Your task to perform on an android device: open wifi settings Image 0: 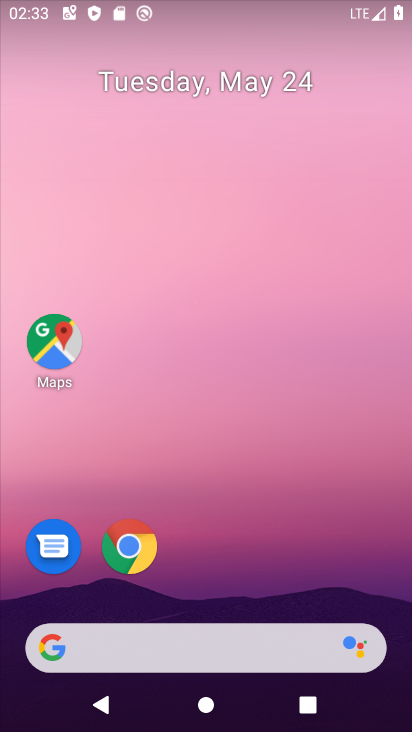
Step 0: drag from (210, 587) to (314, 170)
Your task to perform on an android device: open wifi settings Image 1: 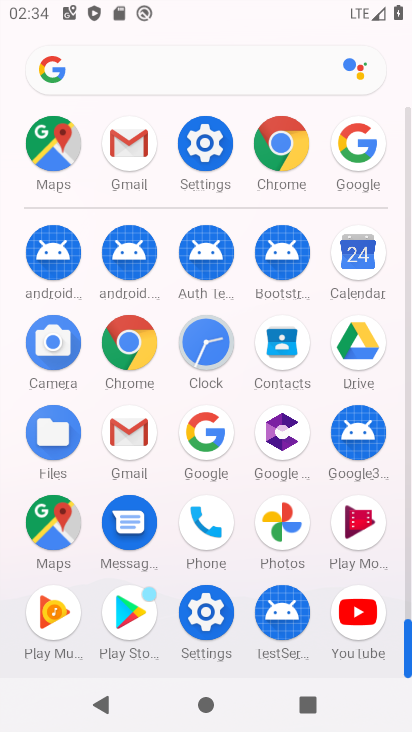
Step 1: click (185, 157)
Your task to perform on an android device: open wifi settings Image 2: 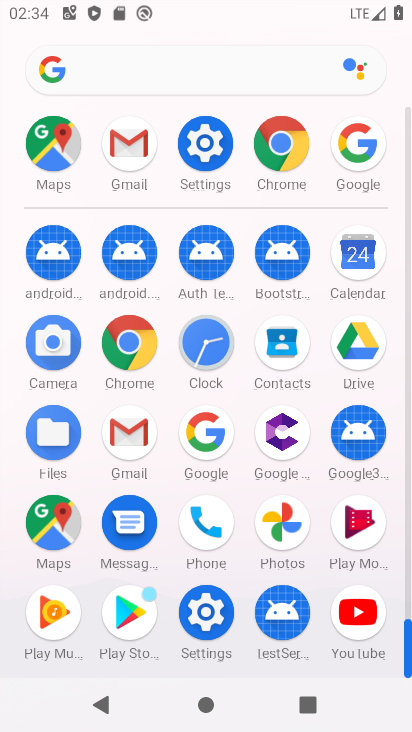
Step 2: click (185, 157)
Your task to perform on an android device: open wifi settings Image 3: 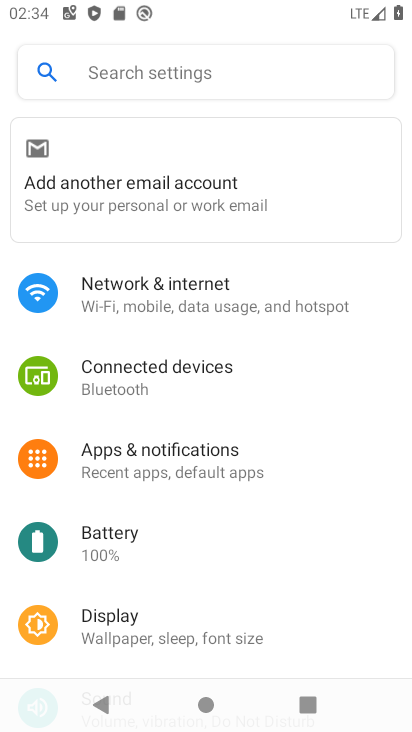
Step 3: click (210, 302)
Your task to perform on an android device: open wifi settings Image 4: 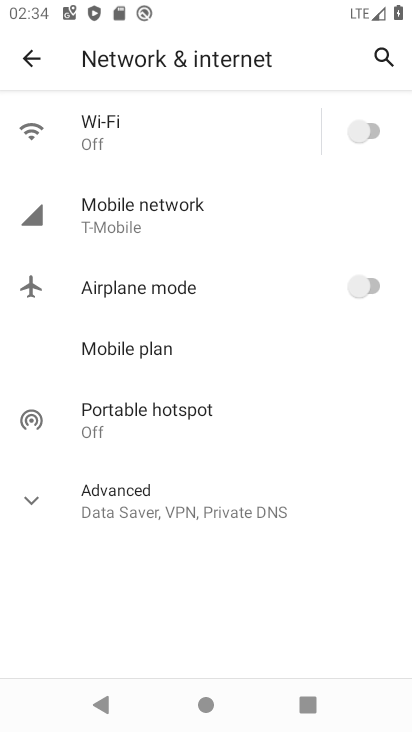
Step 4: click (208, 137)
Your task to perform on an android device: open wifi settings Image 5: 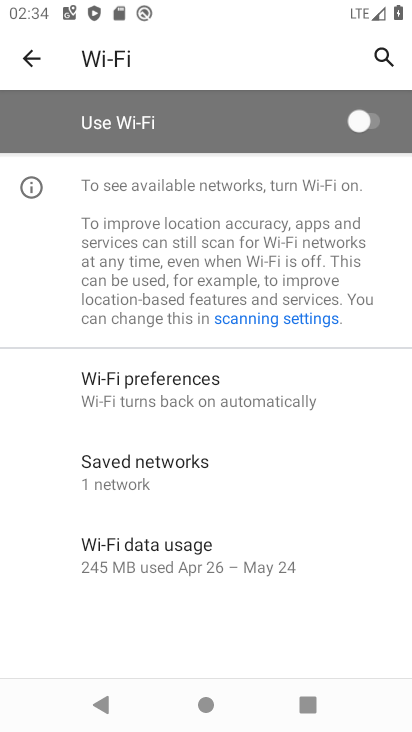
Step 5: task complete